Your task to perform on an android device: Go to Google maps Image 0: 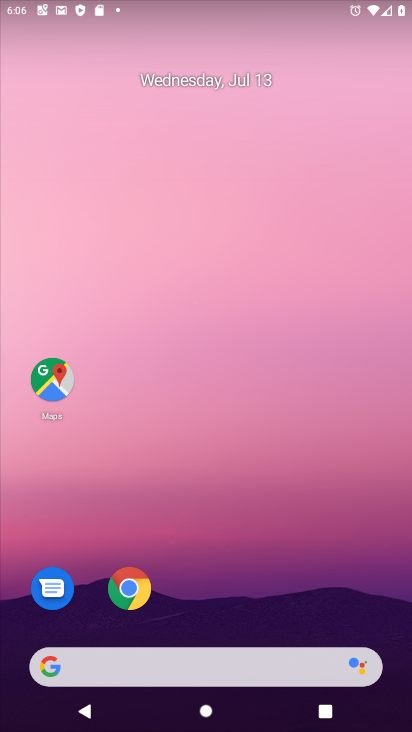
Step 0: click (52, 393)
Your task to perform on an android device: Go to Google maps Image 1: 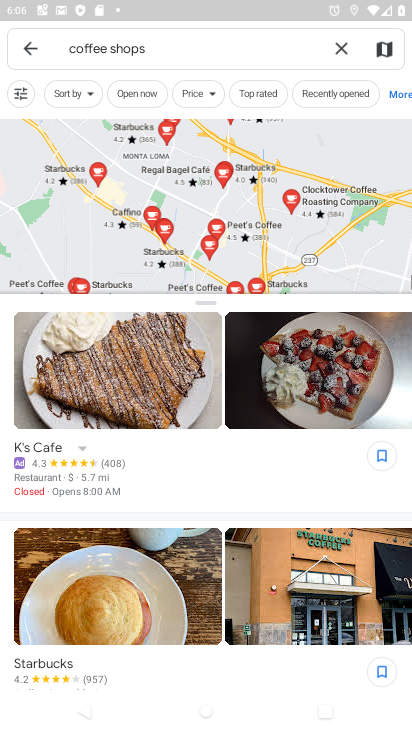
Step 1: task complete